Your task to perform on an android device: Go to Amazon Image 0: 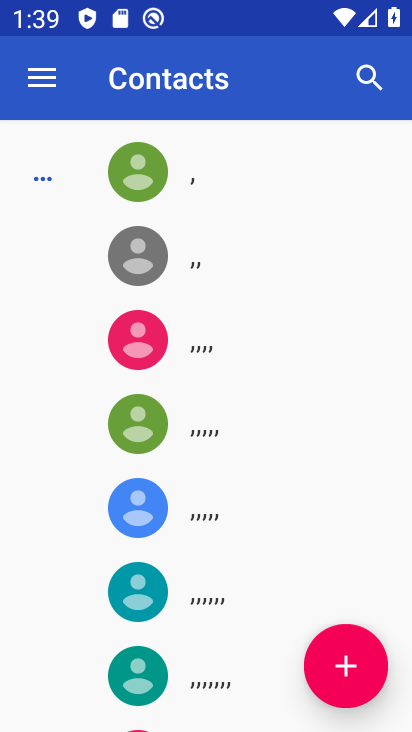
Step 0: press back button
Your task to perform on an android device: Go to Amazon Image 1: 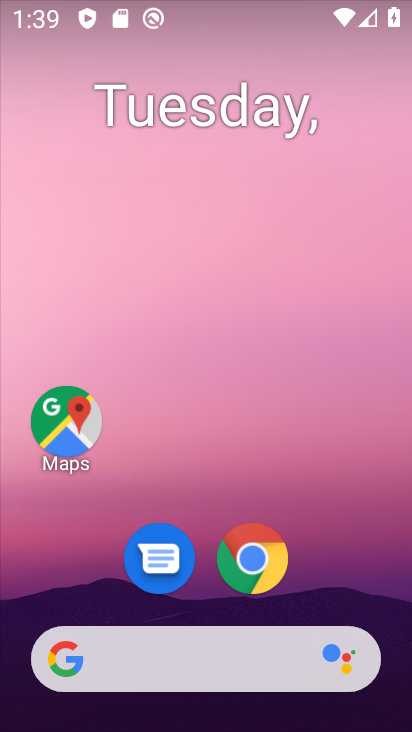
Step 1: click (269, 560)
Your task to perform on an android device: Go to Amazon Image 2: 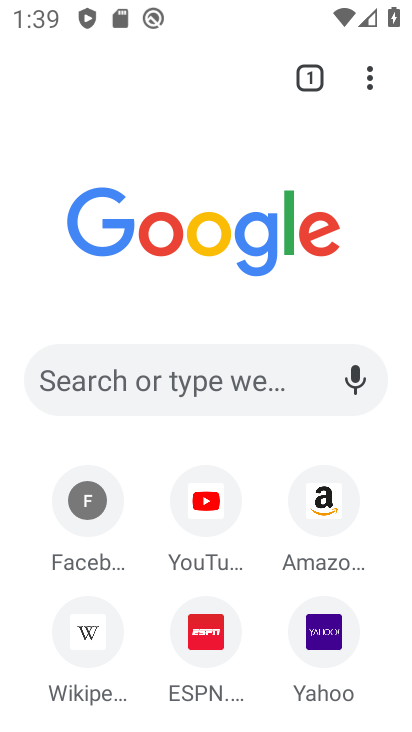
Step 2: click (325, 514)
Your task to perform on an android device: Go to Amazon Image 3: 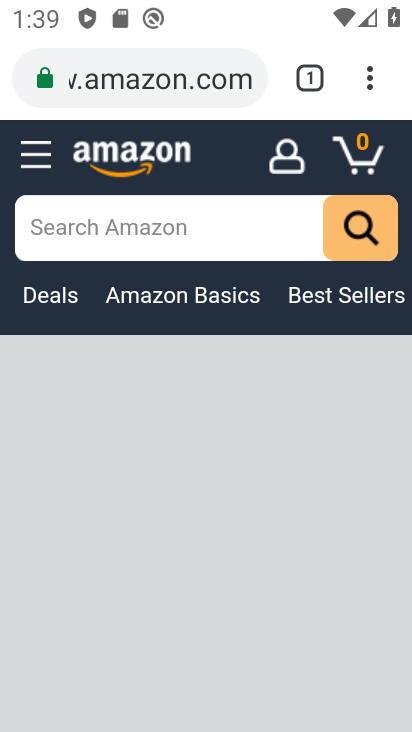
Step 3: task complete